Your task to perform on an android device: Show me recent news Image 0: 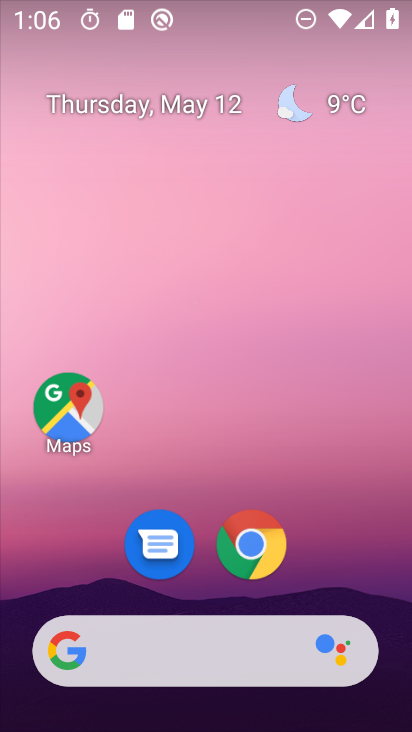
Step 0: drag from (5, 242) to (349, 236)
Your task to perform on an android device: Show me recent news Image 1: 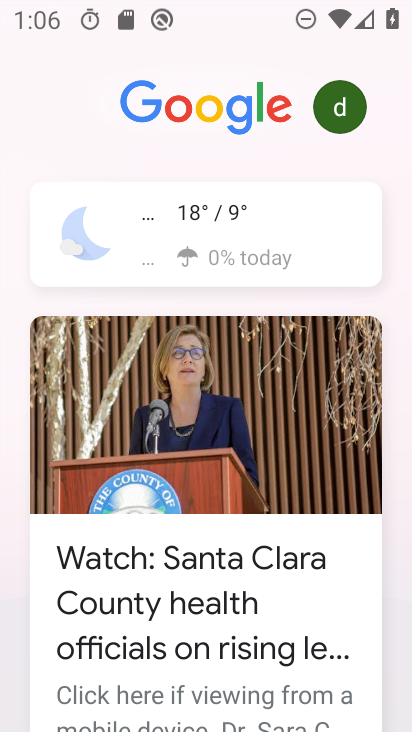
Step 1: task complete